Your task to perform on an android device: toggle translation in the chrome app Image 0: 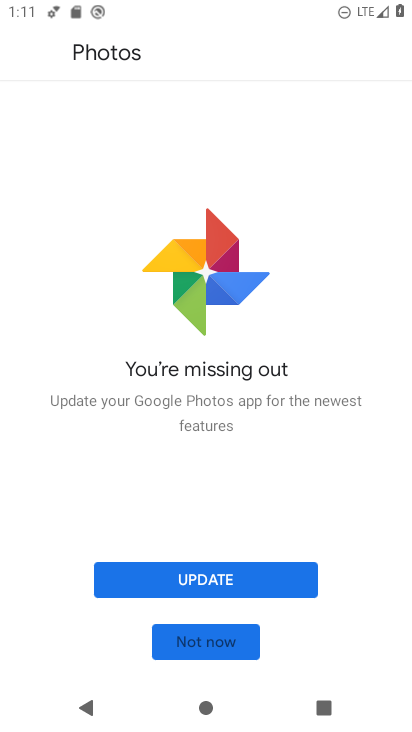
Step 0: press home button
Your task to perform on an android device: toggle translation in the chrome app Image 1: 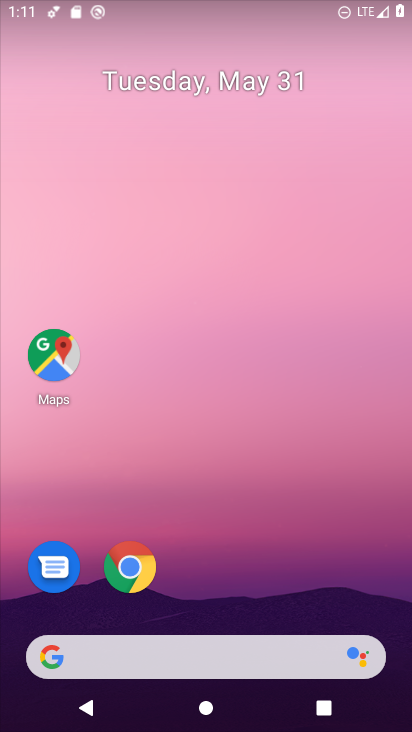
Step 1: click (135, 579)
Your task to perform on an android device: toggle translation in the chrome app Image 2: 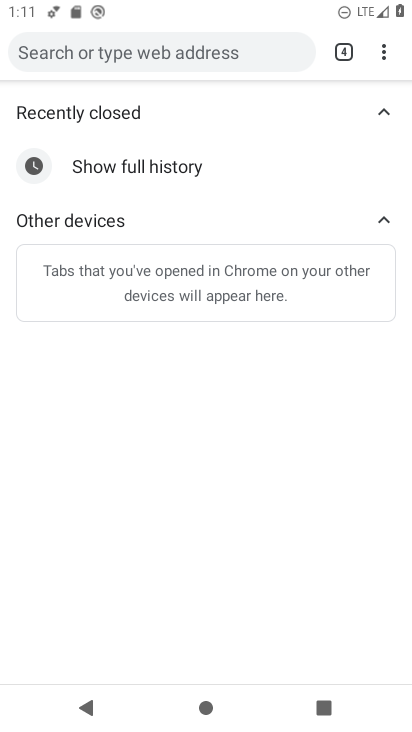
Step 2: click (382, 63)
Your task to perform on an android device: toggle translation in the chrome app Image 3: 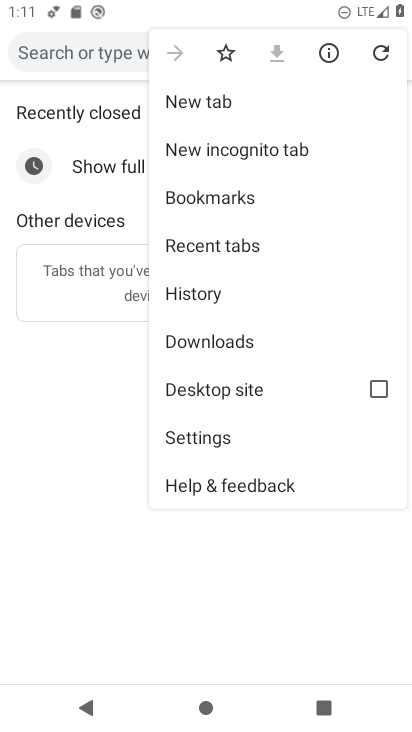
Step 3: click (209, 444)
Your task to perform on an android device: toggle translation in the chrome app Image 4: 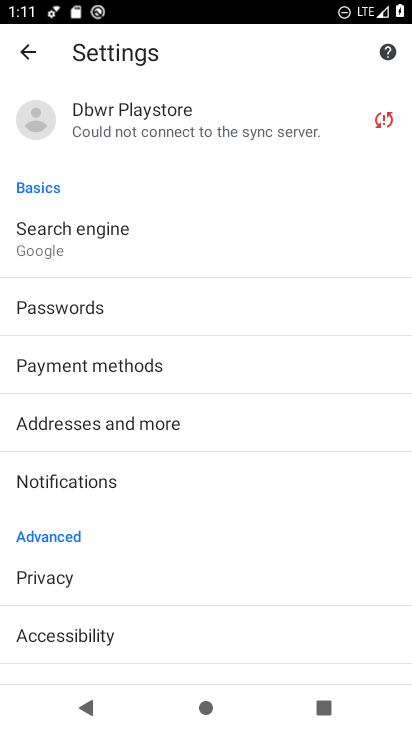
Step 4: drag from (136, 623) to (162, 446)
Your task to perform on an android device: toggle translation in the chrome app Image 5: 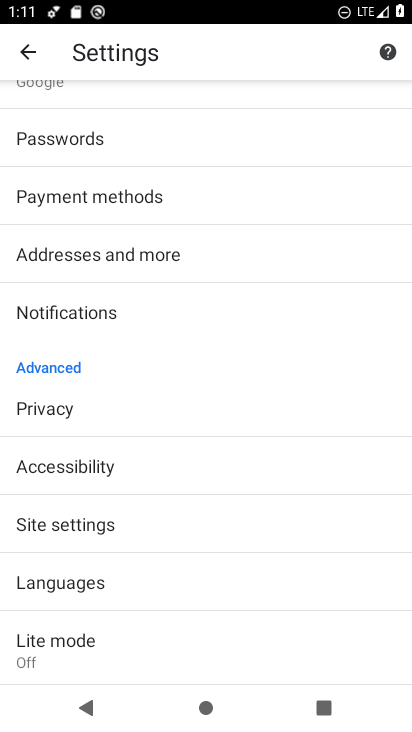
Step 5: click (97, 570)
Your task to perform on an android device: toggle translation in the chrome app Image 6: 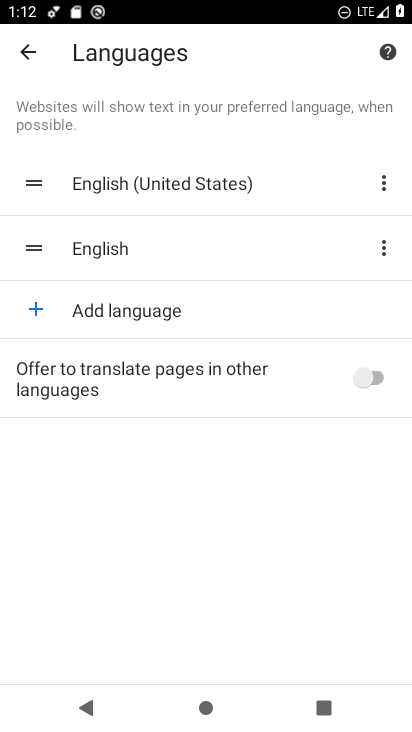
Step 6: click (381, 380)
Your task to perform on an android device: toggle translation in the chrome app Image 7: 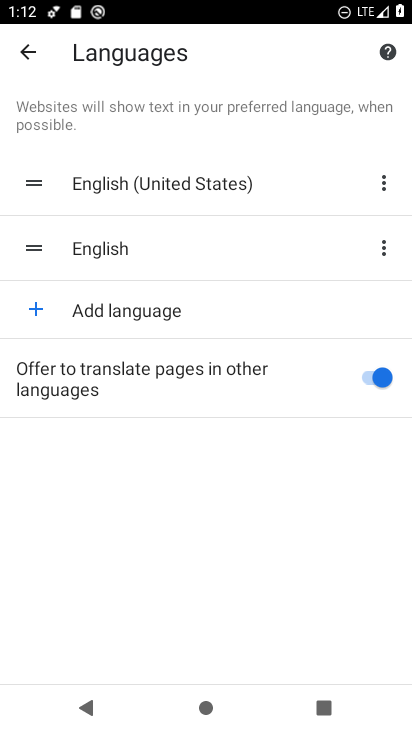
Step 7: task complete